Your task to perform on an android device: turn vacation reply on in the gmail app Image 0: 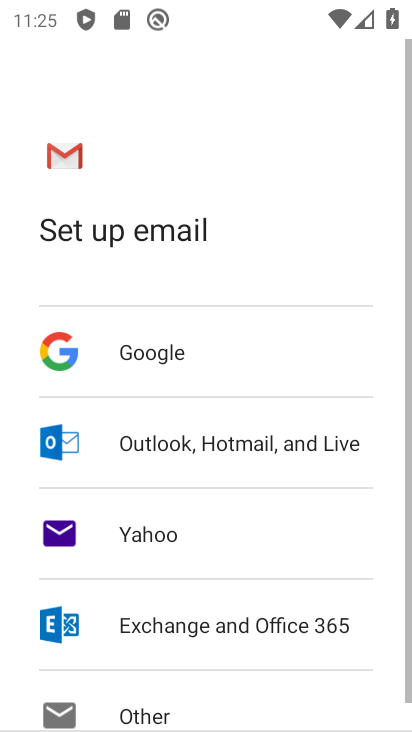
Step 0: press home button
Your task to perform on an android device: turn vacation reply on in the gmail app Image 1: 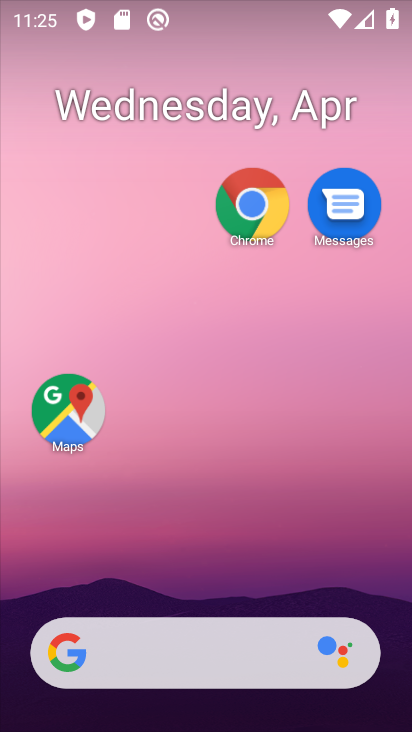
Step 1: drag from (198, 596) to (307, 14)
Your task to perform on an android device: turn vacation reply on in the gmail app Image 2: 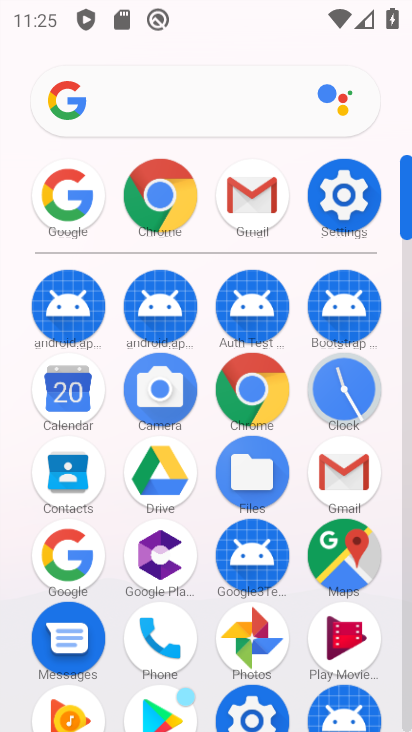
Step 2: click (352, 468)
Your task to perform on an android device: turn vacation reply on in the gmail app Image 3: 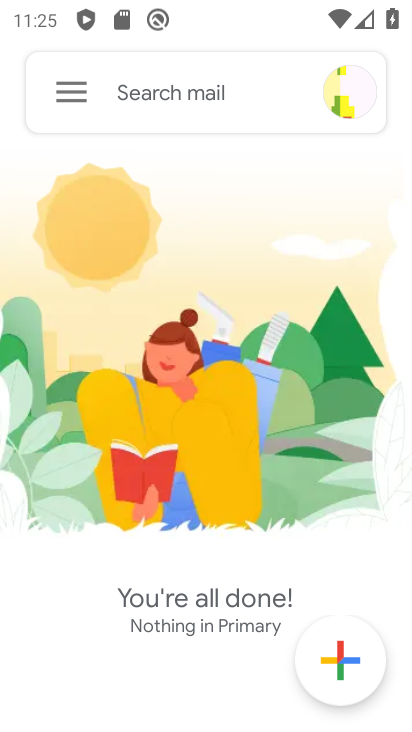
Step 3: click (55, 106)
Your task to perform on an android device: turn vacation reply on in the gmail app Image 4: 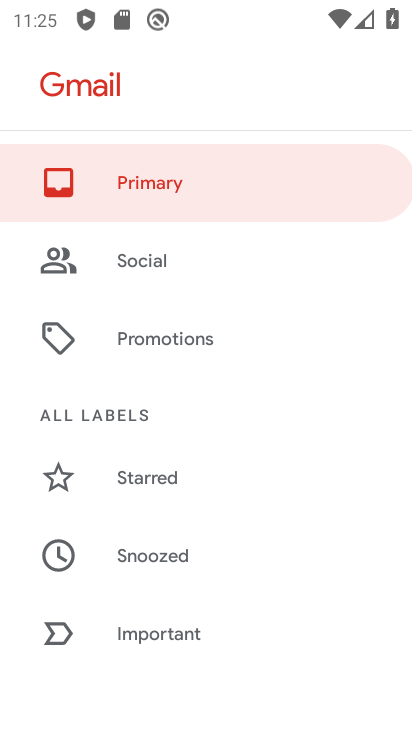
Step 4: drag from (162, 579) to (124, 91)
Your task to perform on an android device: turn vacation reply on in the gmail app Image 5: 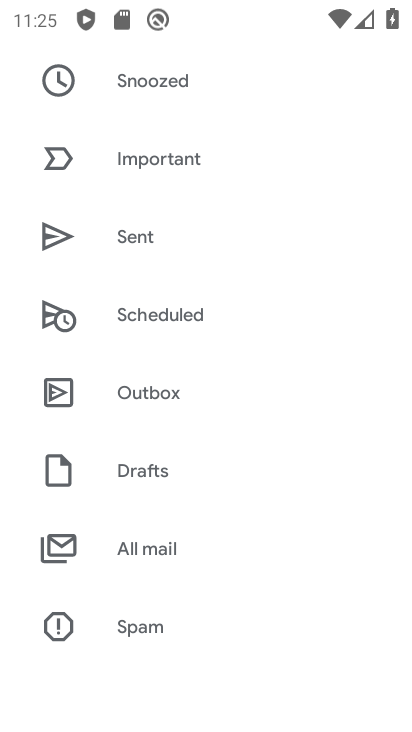
Step 5: drag from (178, 581) to (185, 123)
Your task to perform on an android device: turn vacation reply on in the gmail app Image 6: 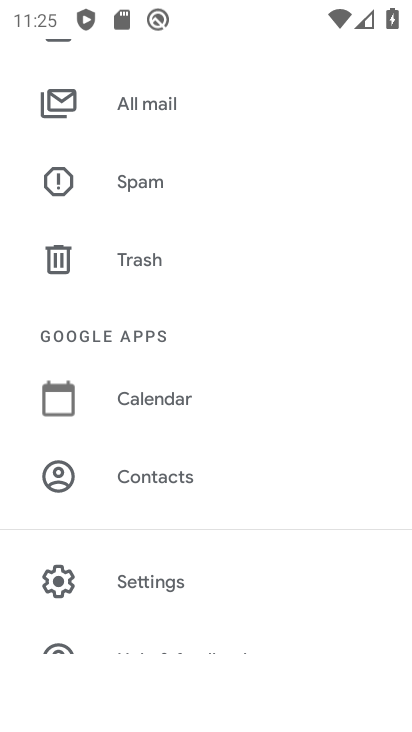
Step 6: click (132, 568)
Your task to perform on an android device: turn vacation reply on in the gmail app Image 7: 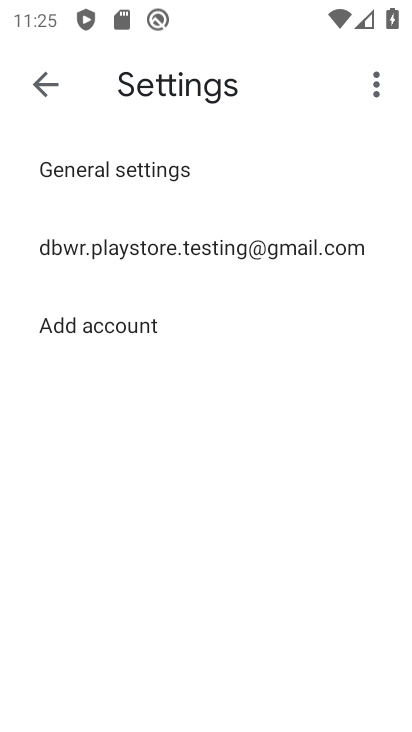
Step 7: click (149, 257)
Your task to perform on an android device: turn vacation reply on in the gmail app Image 8: 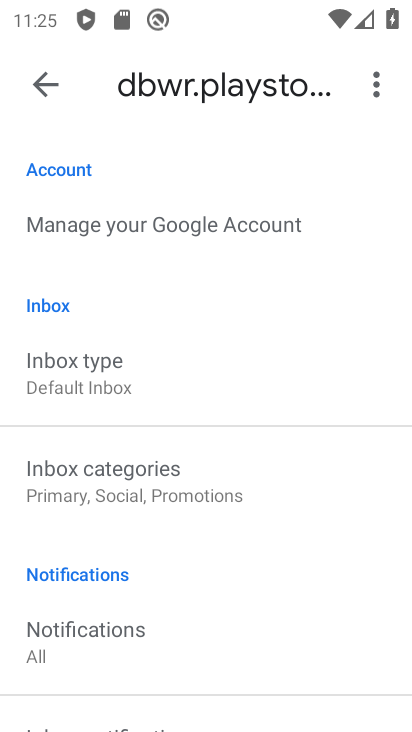
Step 8: drag from (131, 379) to (111, 79)
Your task to perform on an android device: turn vacation reply on in the gmail app Image 9: 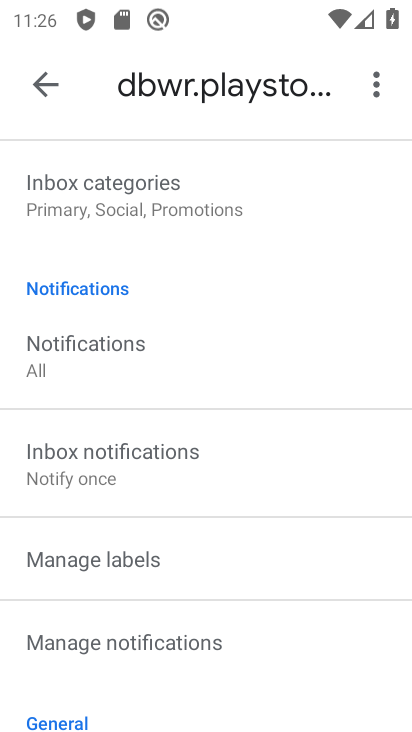
Step 9: drag from (172, 596) to (164, 168)
Your task to perform on an android device: turn vacation reply on in the gmail app Image 10: 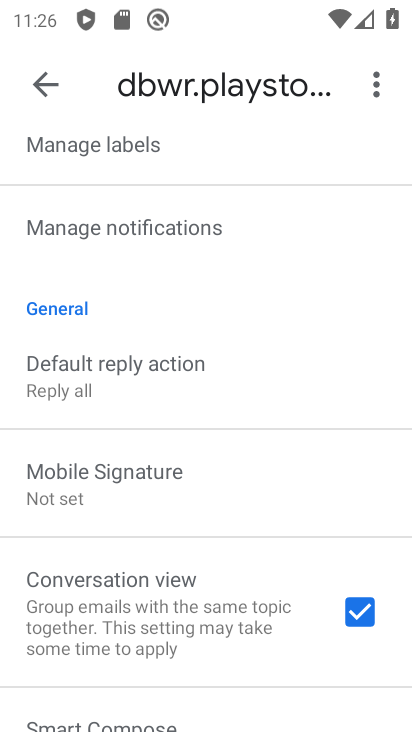
Step 10: drag from (183, 600) to (183, 220)
Your task to perform on an android device: turn vacation reply on in the gmail app Image 11: 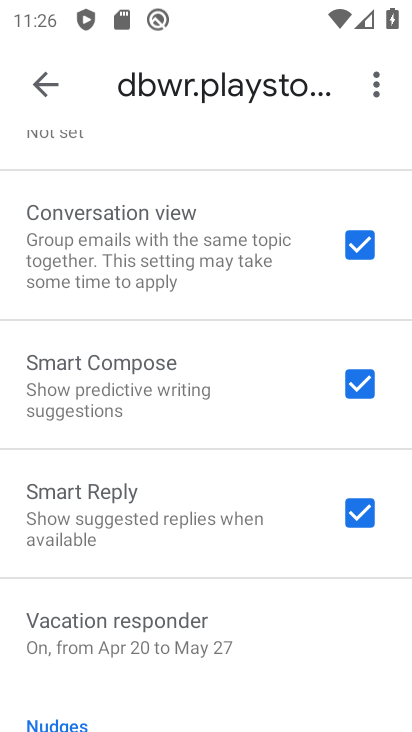
Step 11: click (198, 630)
Your task to perform on an android device: turn vacation reply on in the gmail app Image 12: 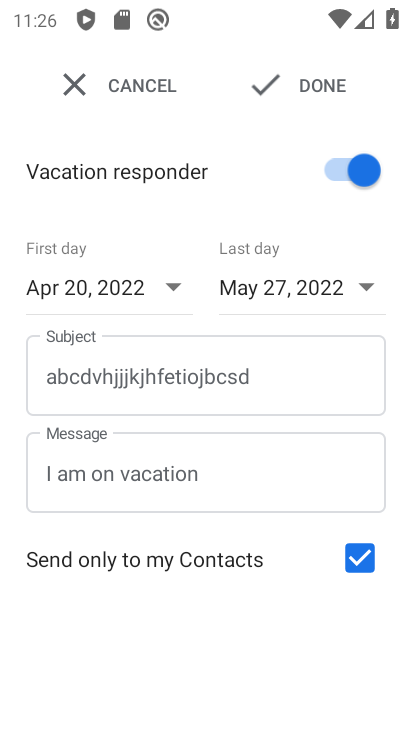
Step 12: click (313, 88)
Your task to perform on an android device: turn vacation reply on in the gmail app Image 13: 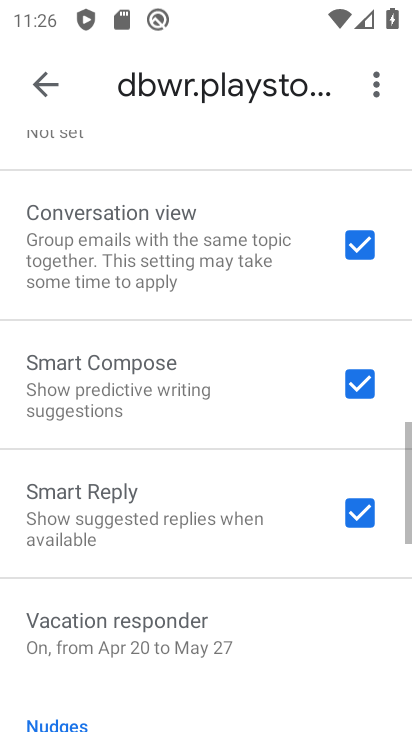
Step 13: task complete